Your task to perform on an android device: uninstall "TextNow: Call + Text Unlimited" Image 0: 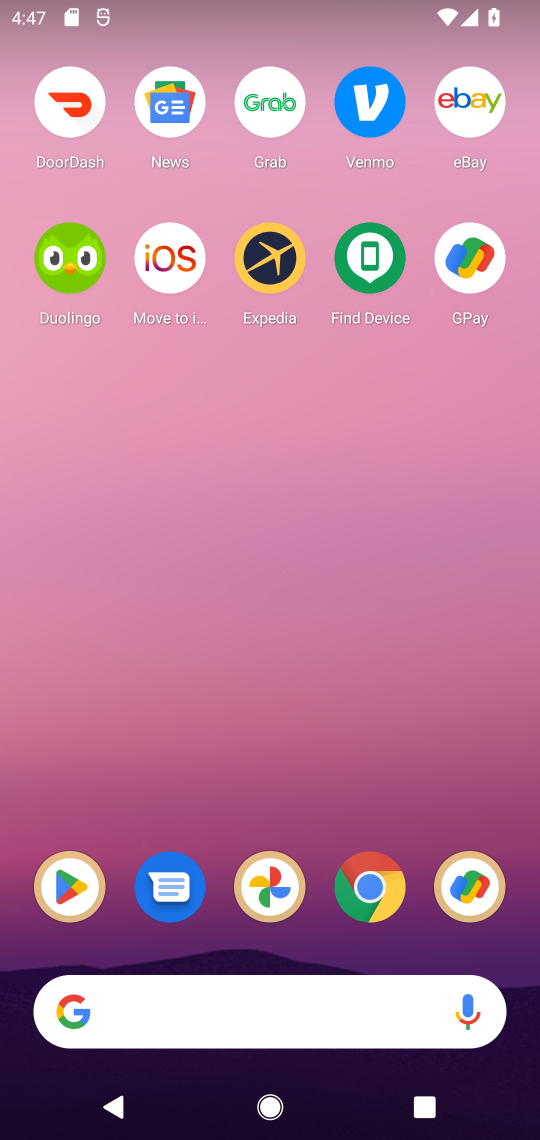
Step 0: click (42, 888)
Your task to perform on an android device: uninstall "TextNow: Call + Text Unlimited" Image 1: 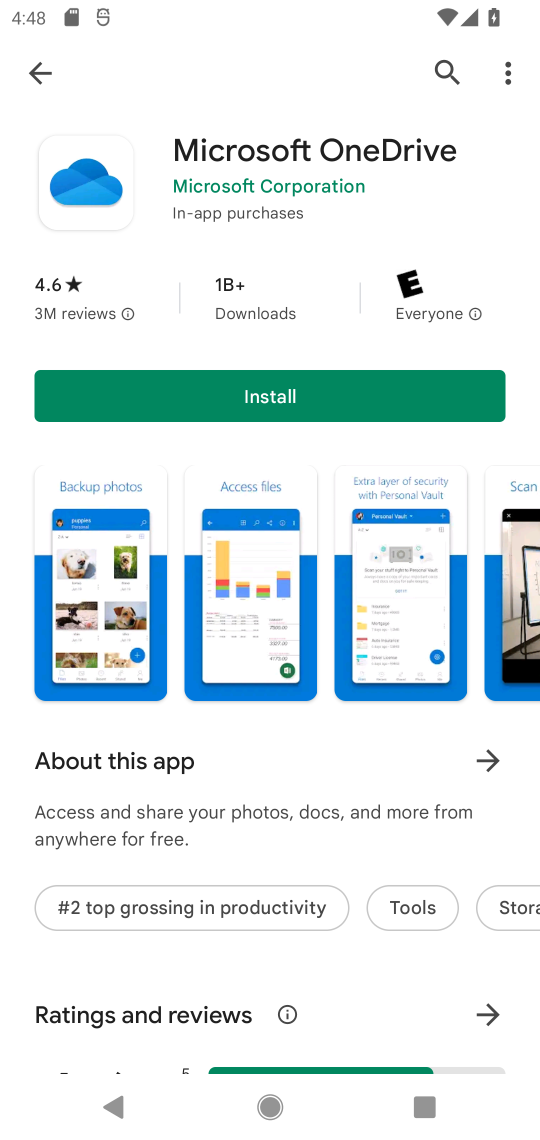
Step 1: click (40, 62)
Your task to perform on an android device: uninstall "TextNow: Call + Text Unlimited" Image 2: 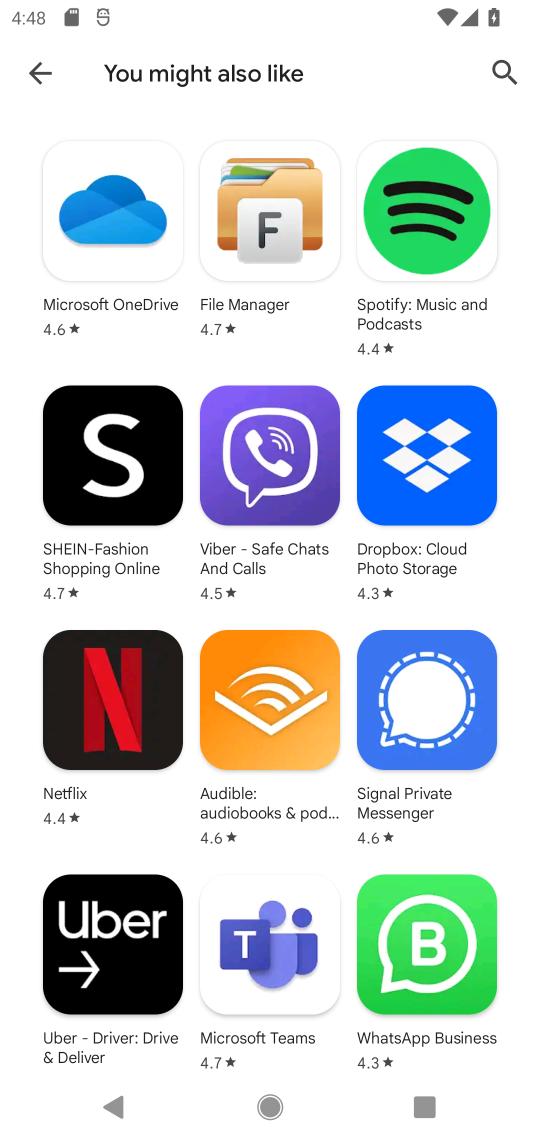
Step 2: click (40, 62)
Your task to perform on an android device: uninstall "TextNow: Call + Text Unlimited" Image 3: 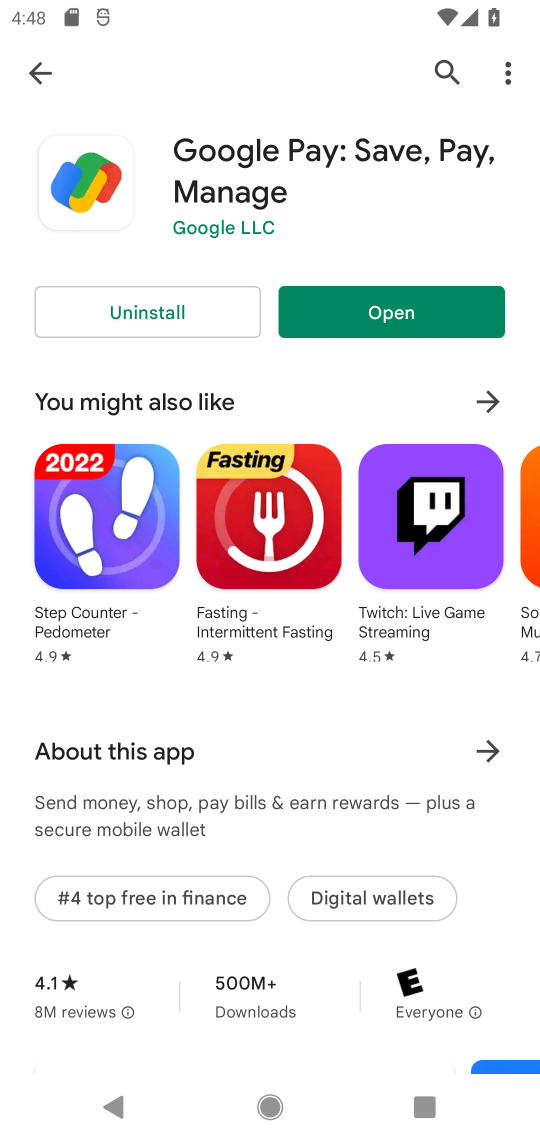
Step 3: click (443, 82)
Your task to perform on an android device: uninstall "TextNow: Call + Text Unlimited" Image 4: 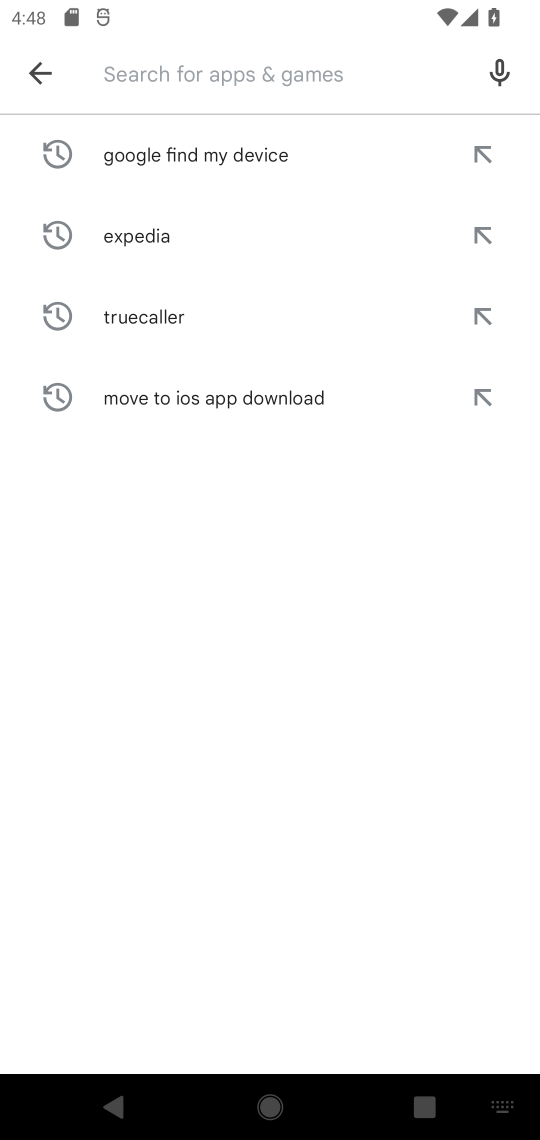
Step 4: type "TextNow"
Your task to perform on an android device: uninstall "TextNow: Call + Text Unlimited" Image 5: 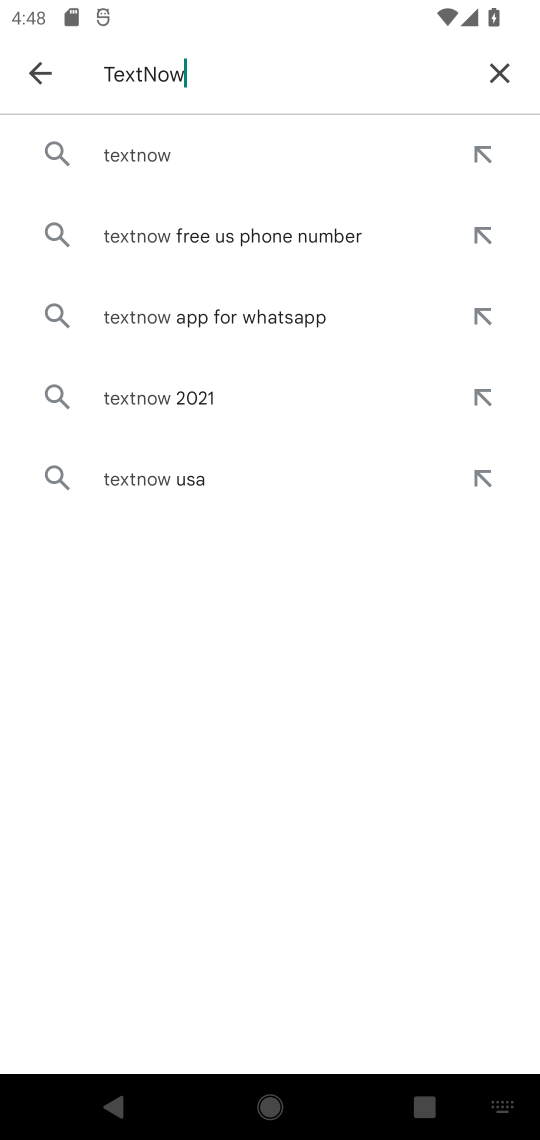
Step 5: click (146, 140)
Your task to perform on an android device: uninstall "TextNow: Call + Text Unlimited" Image 6: 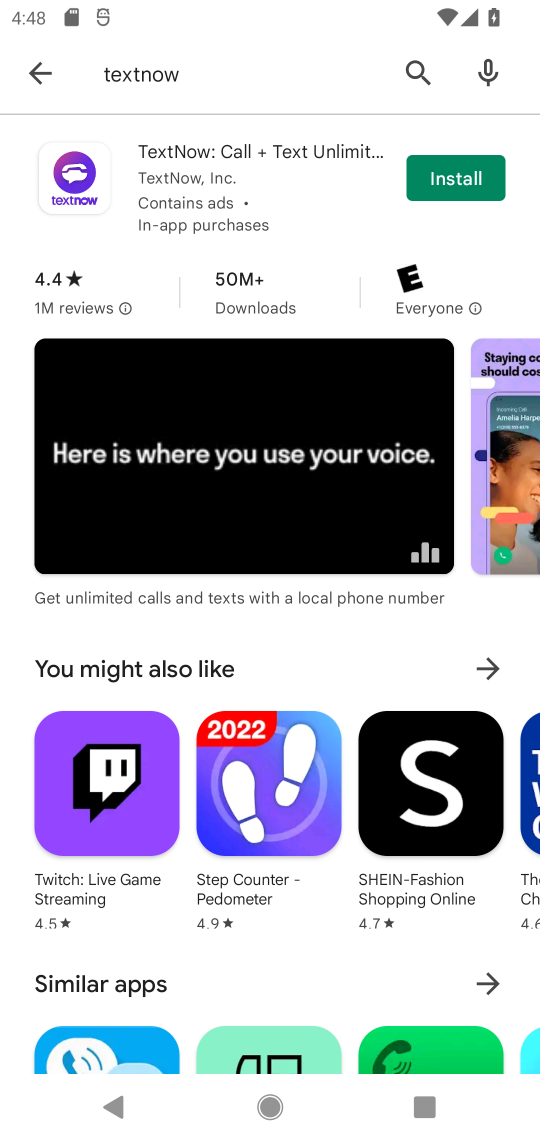
Step 6: click (169, 170)
Your task to perform on an android device: uninstall "TextNow: Call + Text Unlimited" Image 7: 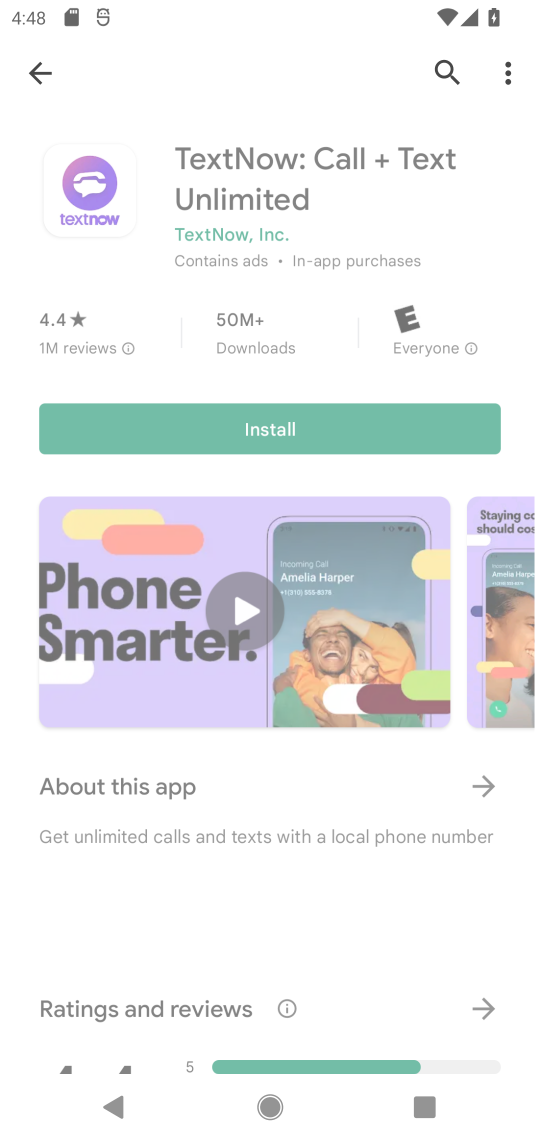
Step 7: task complete